Your task to perform on an android device: Open Maps and search for coffee Image 0: 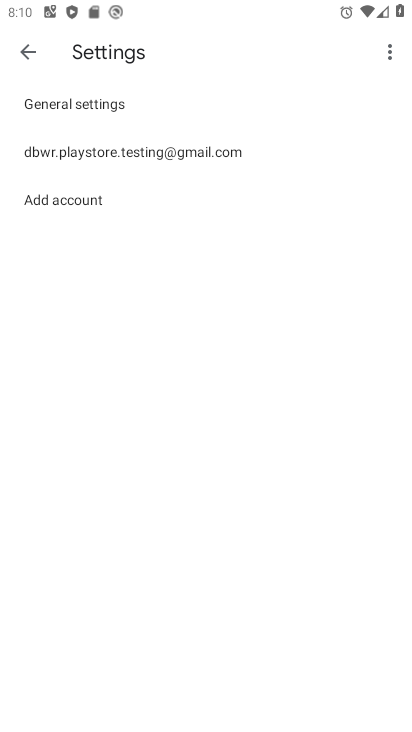
Step 0: press home button
Your task to perform on an android device: Open Maps and search for coffee Image 1: 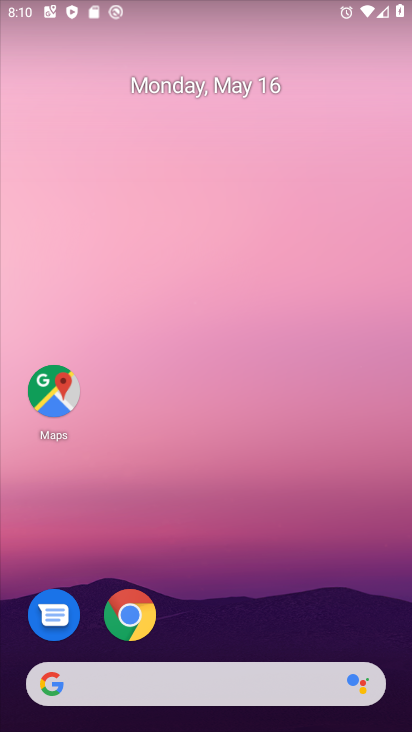
Step 1: click (58, 390)
Your task to perform on an android device: Open Maps and search for coffee Image 2: 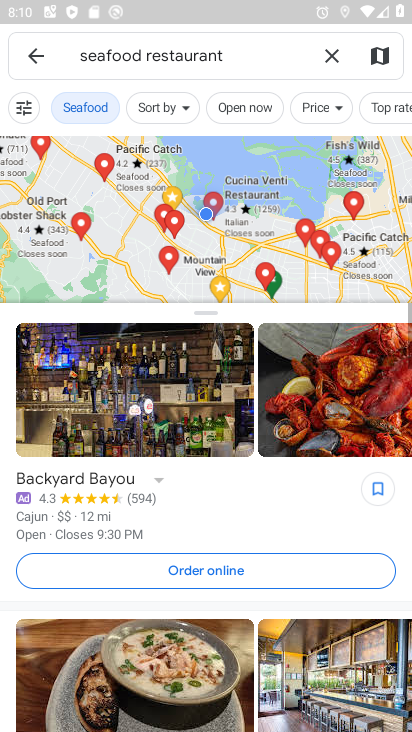
Step 2: click (329, 64)
Your task to perform on an android device: Open Maps and search for coffee Image 3: 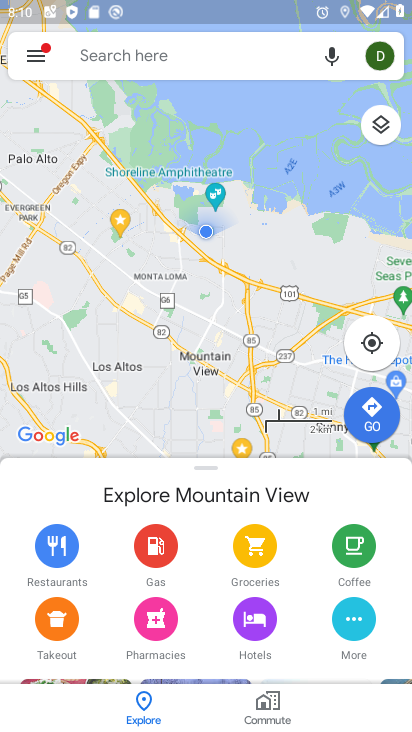
Step 3: click (197, 48)
Your task to perform on an android device: Open Maps and search for coffee Image 4: 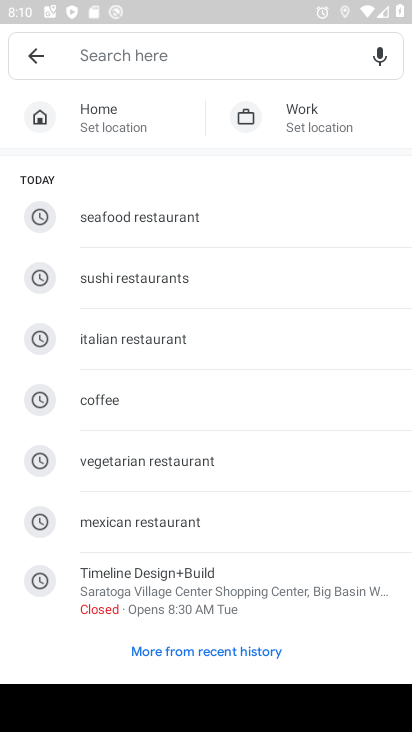
Step 4: click (143, 382)
Your task to perform on an android device: Open Maps and search for coffee Image 5: 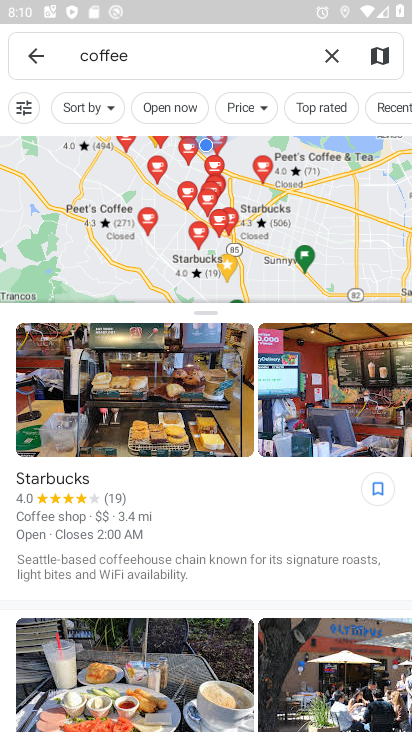
Step 5: task complete